Your task to perform on an android device: turn on airplane mode Image 0: 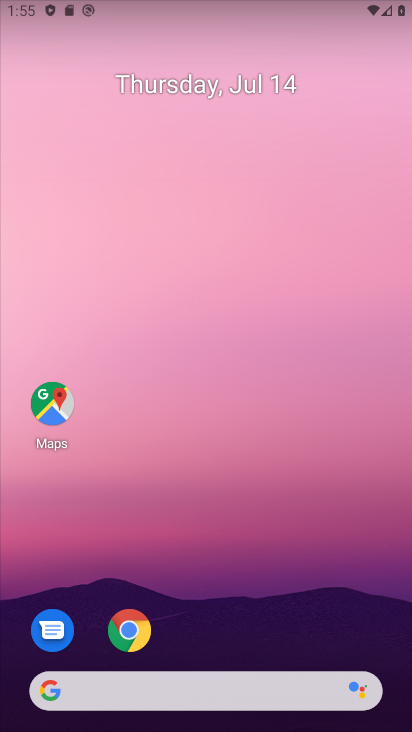
Step 0: press home button
Your task to perform on an android device: turn on airplane mode Image 1: 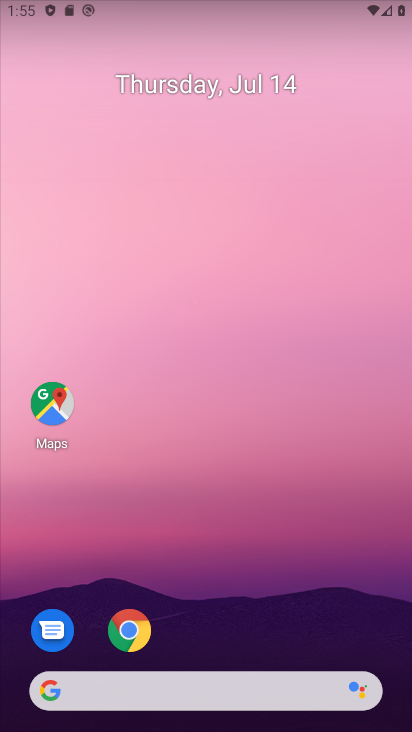
Step 1: drag from (222, 3) to (285, 565)
Your task to perform on an android device: turn on airplane mode Image 2: 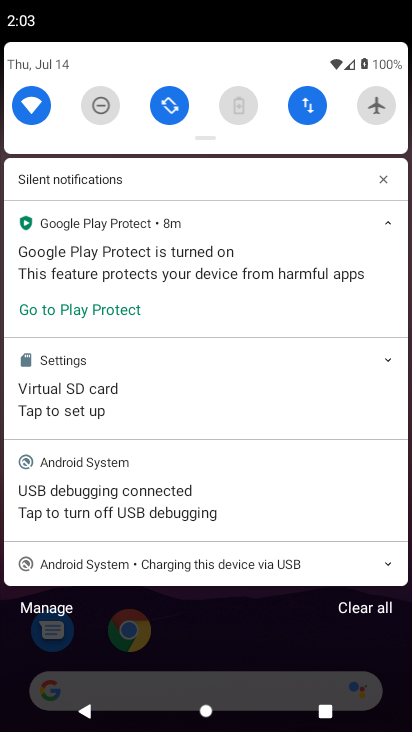
Step 2: click (382, 103)
Your task to perform on an android device: turn on airplane mode Image 3: 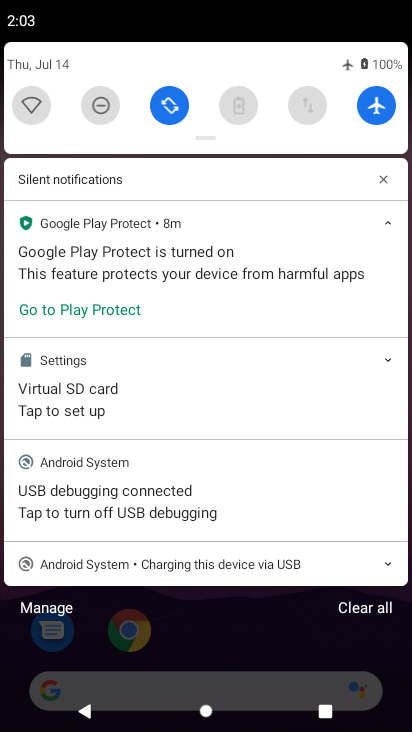
Step 3: task complete